Your task to perform on an android device: toggle sleep mode Image 0: 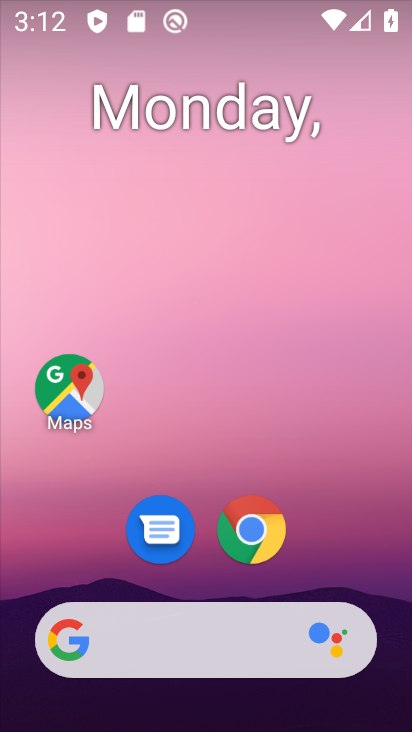
Step 0: drag from (205, 573) to (260, 19)
Your task to perform on an android device: toggle sleep mode Image 1: 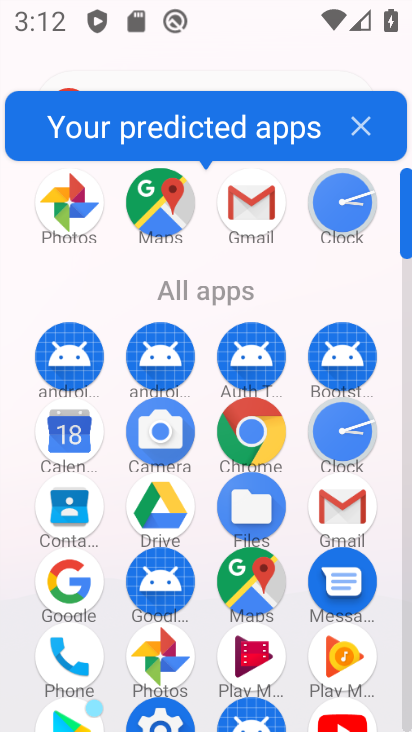
Step 1: drag from (201, 356) to (230, 23)
Your task to perform on an android device: toggle sleep mode Image 2: 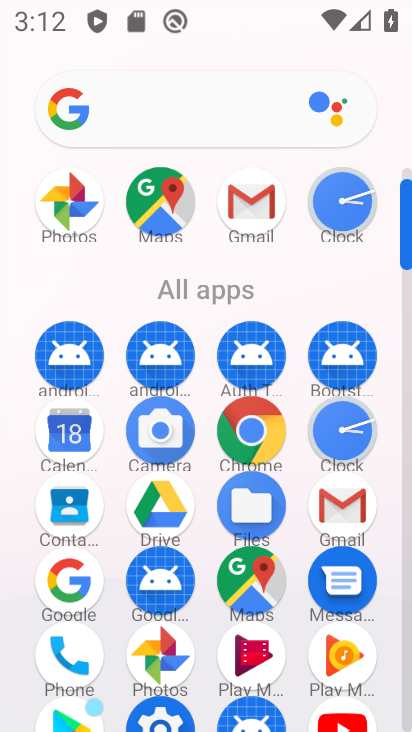
Step 2: drag from (202, 660) to (235, 82)
Your task to perform on an android device: toggle sleep mode Image 3: 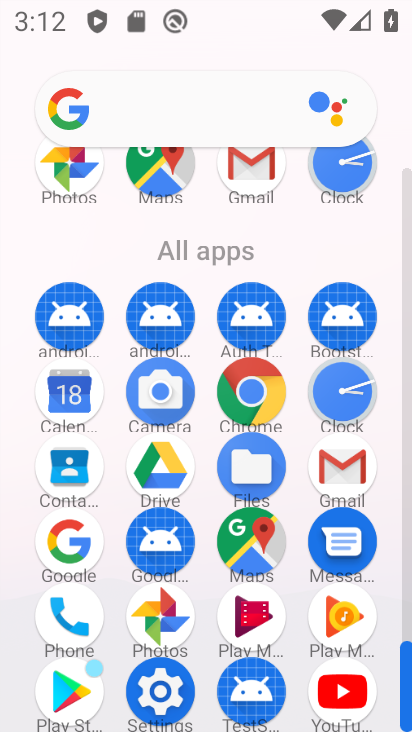
Step 3: click (164, 685)
Your task to perform on an android device: toggle sleep mode Image 4: 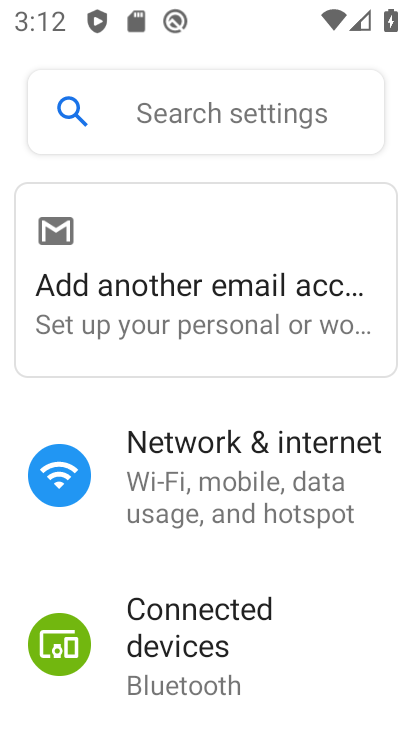
Step 4: click (245, 105)
Your task to perform on an android device: toggle sleep mode Image 5: 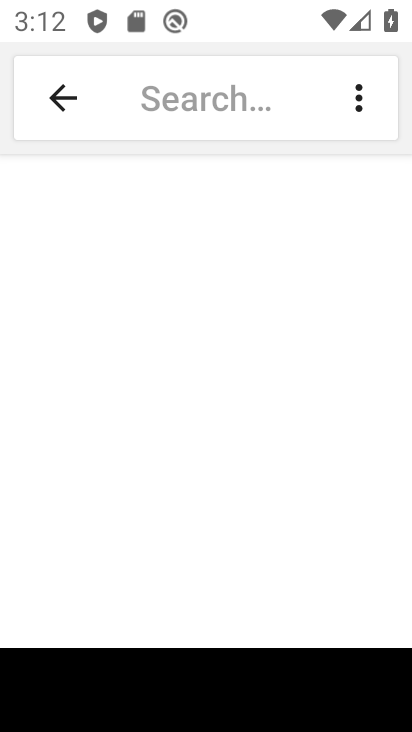
Step 5: type "sleep mode"
Your task to perform on an android device: toggle sleep mode Image 6: 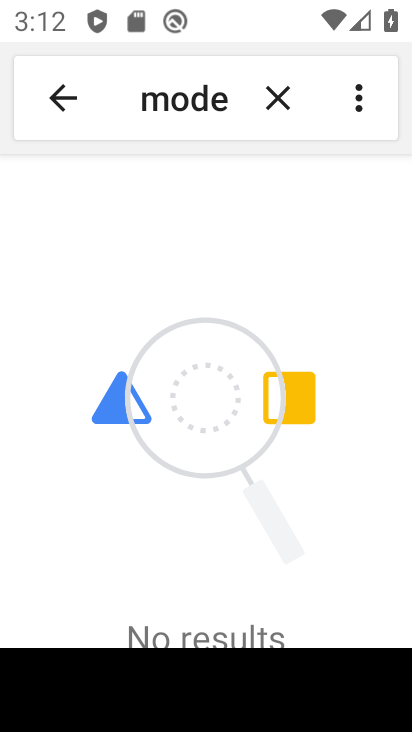
Step 6: task complete